Your task to perform on an android device: Open CNN.com Image 0: 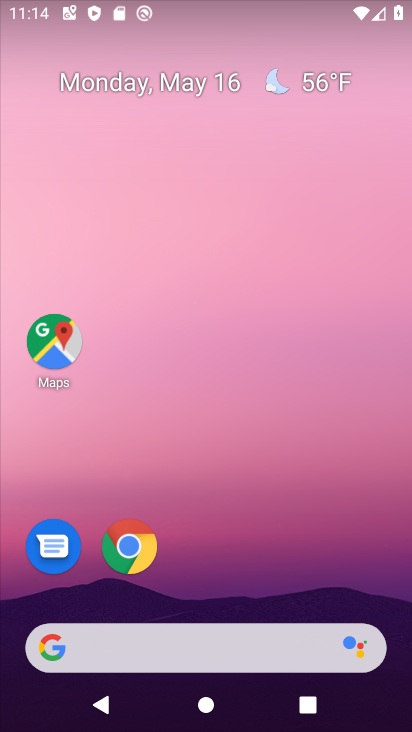
Step 0: drag from (292, 518) to (299, 71)
Your task to perform on an android device: Open CNN.com Image 1: 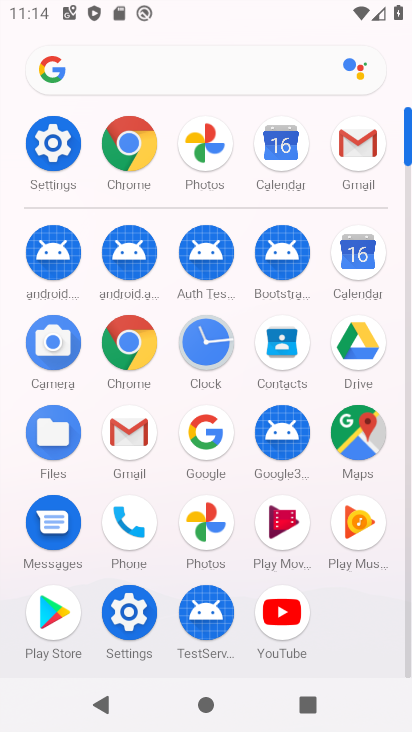
Step 1: click (139, 157)
Your task to perform on an android device: Open CNN.com Image 2: 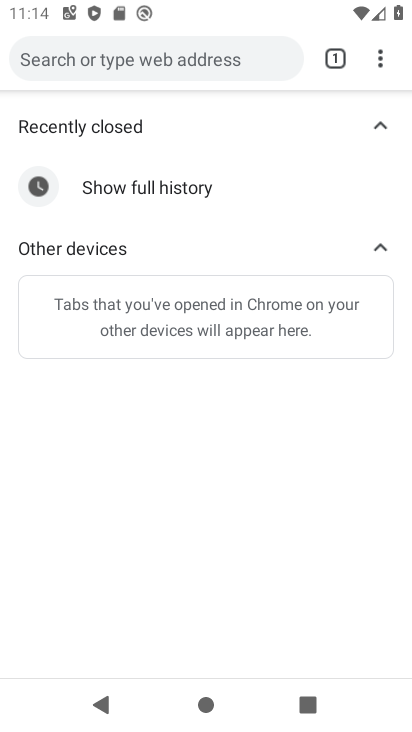
Step 2: click (180, 65)
Your task to perform on an android device: Open CNN.com Image 3: 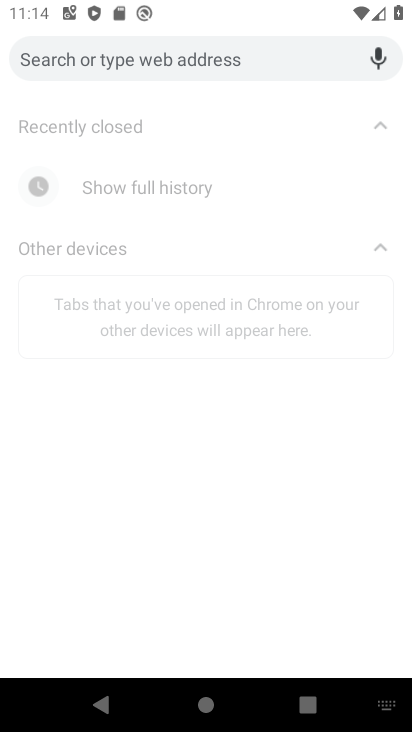
Step 3: type "cnn"
Your task to perform on an android device: Open CNN.com Image 4: 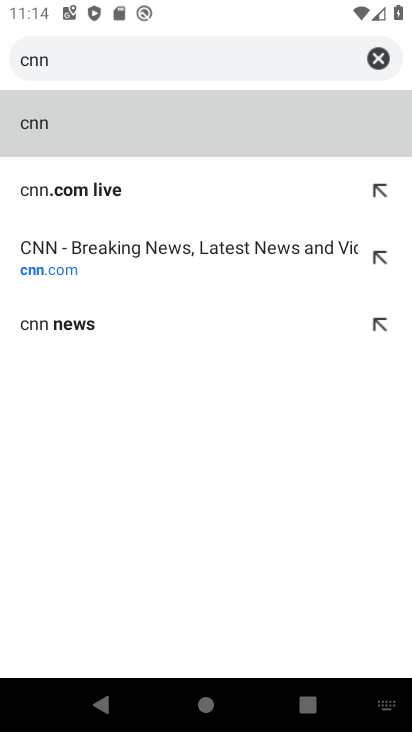
Step 4: click (87, 187)
Your task to perform on an android device: Open CNN.com Image 5: 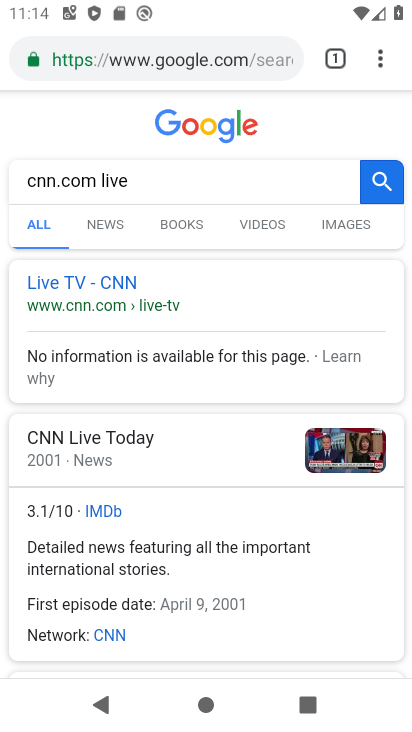
Step 5: click (104, 302)
Your task to perform on an android device: Open CNN.com Image 6: 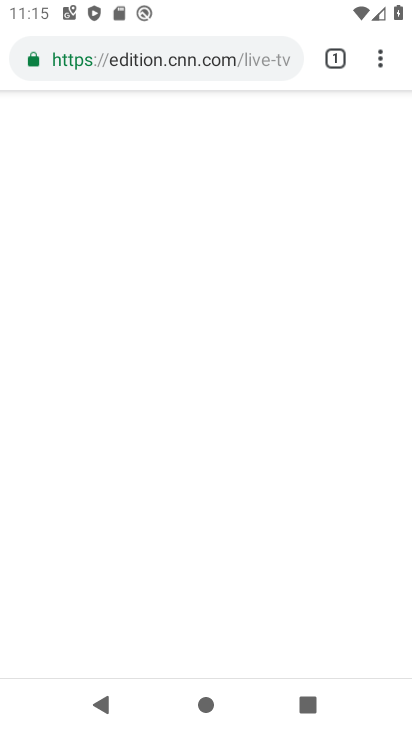
Step 6: task complete